Your task to perform on an android device: Go to accessibility settings Image 0: 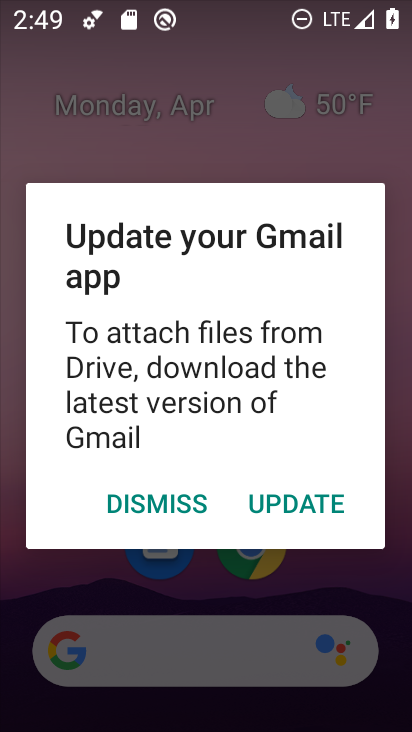
Step 0: click (180, 498)
Your task to perform on an android device: Go to accessibility settings Image 1: 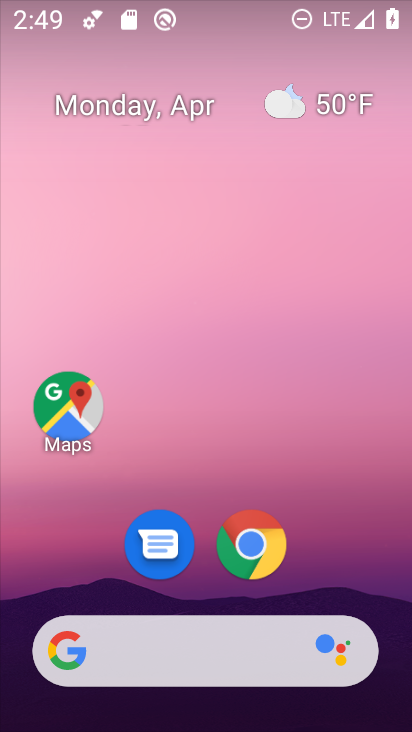
Step 1: drag from (336, 576) to (218, 47)
Your task to perform on an android device: Go to accessibility settings Image 2: 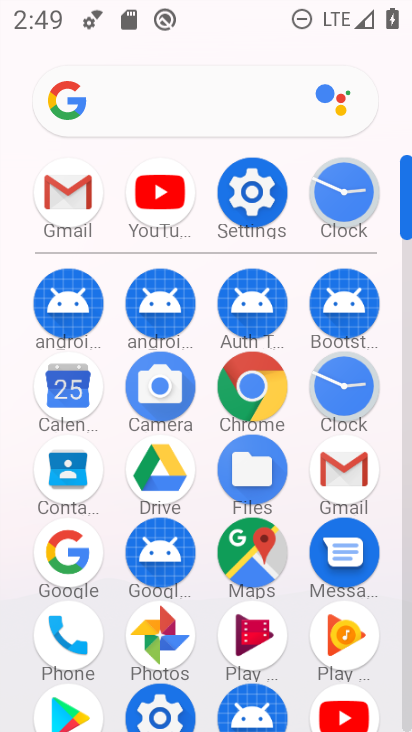
Step 2: click (261, 201)
Your task to perform on an android device: Go to accessibility settings Image 3: 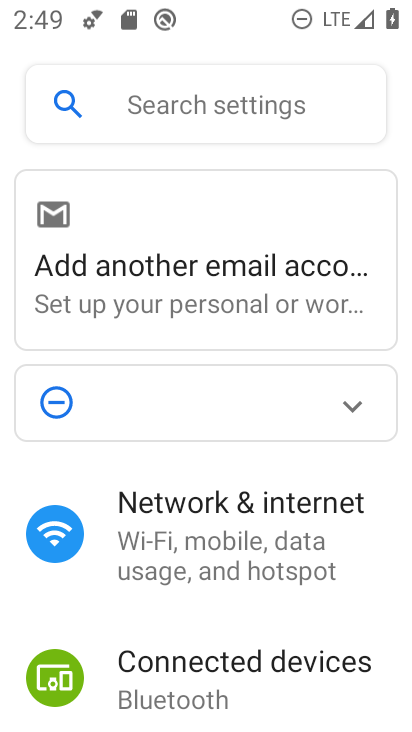
Step 3: drag from (236, 680) to (266, 54)
Your task to perform on an android device: Go to accessibility settings Image 4: 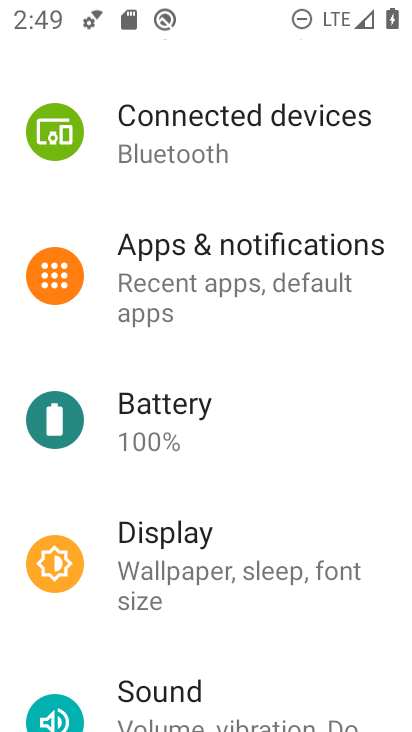
Step 4: drag from (239, 713) to (162, 2)
Your task to perform on an android device: Go to accessibility settings Image 5: 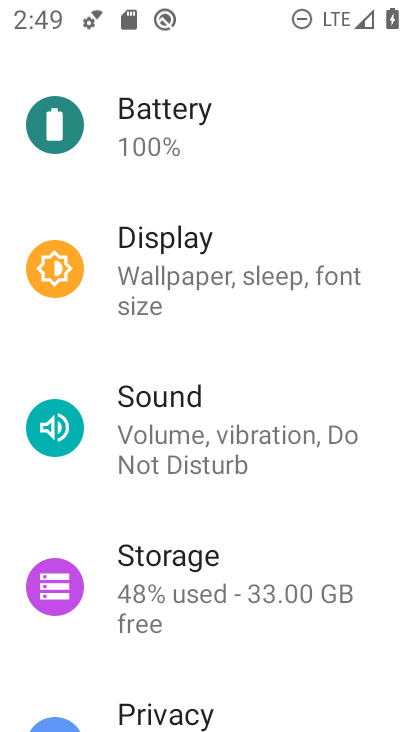
Step 5: drag from (255, 677) to (261, 224)
Your task to perform on an android device: Go to accessibility settings Image 6: 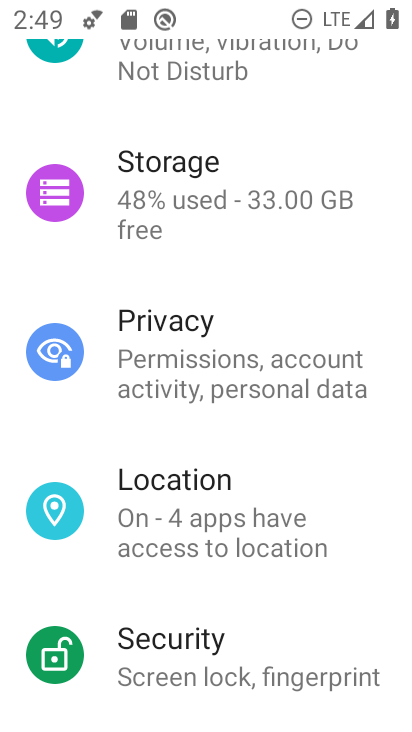
Step 6: drag from (264, 612) to (225, 133)
Your task to perform on an android device: Go to accessibility settings Image 7: 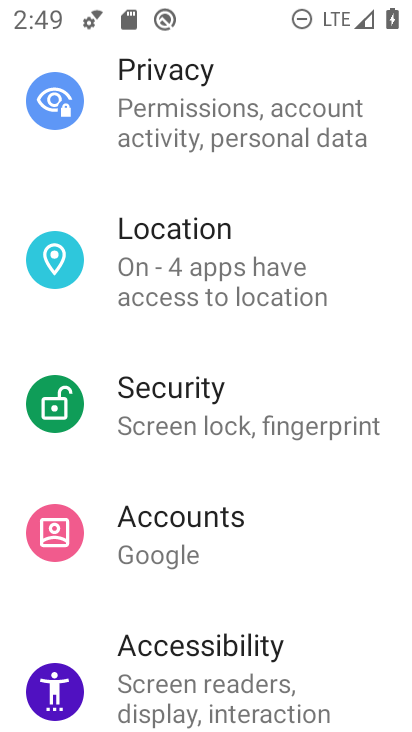
Step 7: click (223, 663)
Your task to perform on an android device: Go to accessibility settings Image 8: 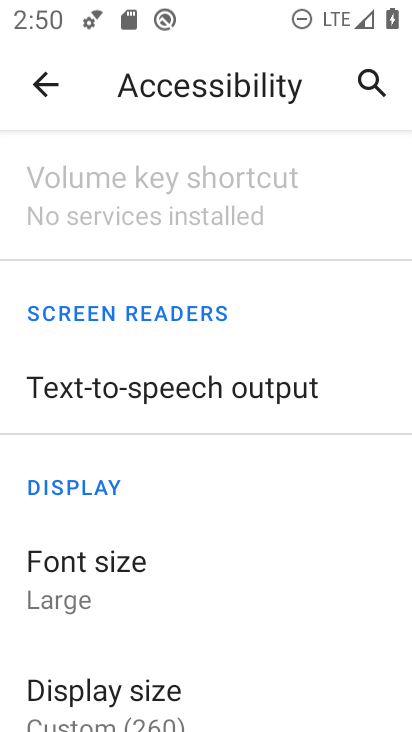
Step 8: task complete